Your task to perform on an android device: open chrome privacy settings Image 0: 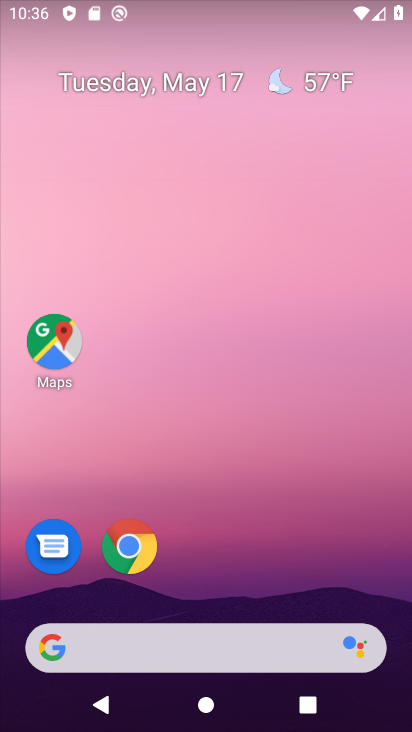
Step 0: click (131, 556)
Your task to perform on an android device: open chrome privacy settings Image 1: 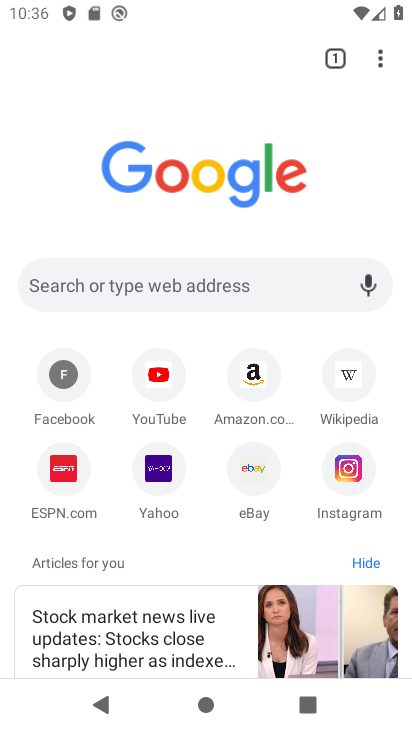
Step 1: drag from (378, 55) to (233, 500)
Your task to perform on an android device: open chrome privacy settings Image 2: 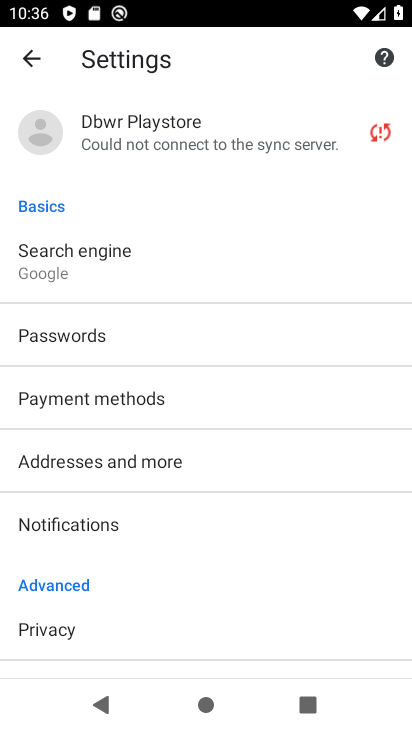
Step 2: drag from (196, 563) to (243, 273)
Your task to perform on an android device: open chrome privacy settings Image 3: 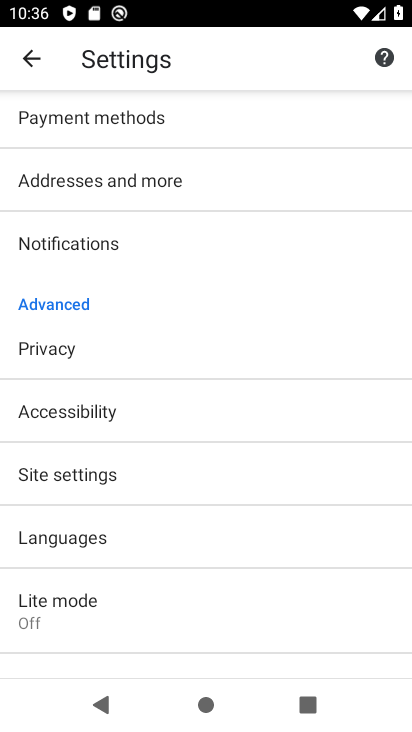
Step 3: drag from (216, 561) to (248, 338)
Your task to perform on an android device: open chrome privacy settings Image 4: 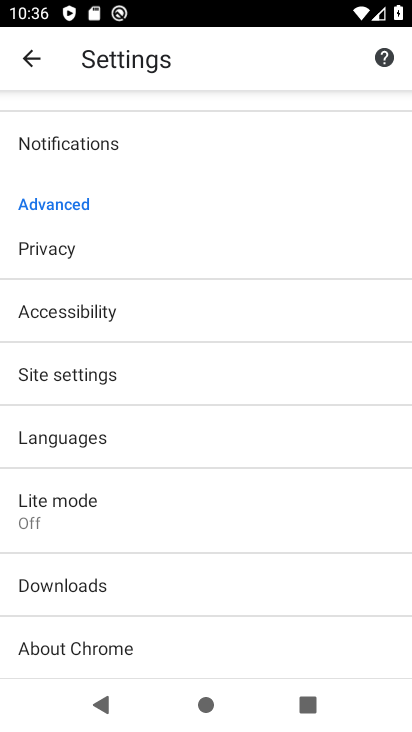
Step 4: drag from (200, 344) to (178, 583)
Your task to perform on an android device: open chrome privacy settings Image 5: 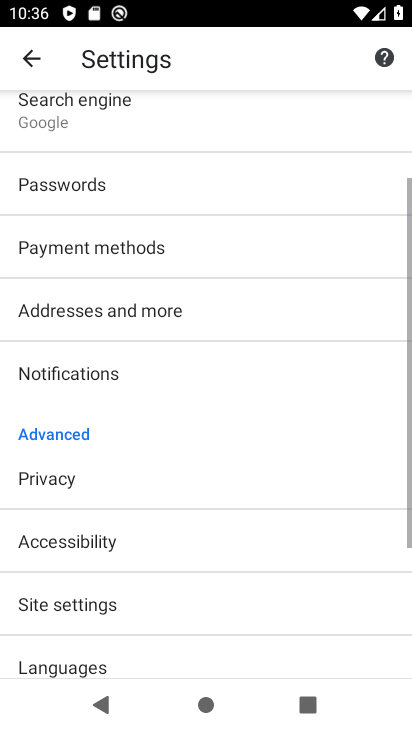
Step 5: click (93, 482)
Your task to perform on an android device: open chrome privacy settings Image 6: 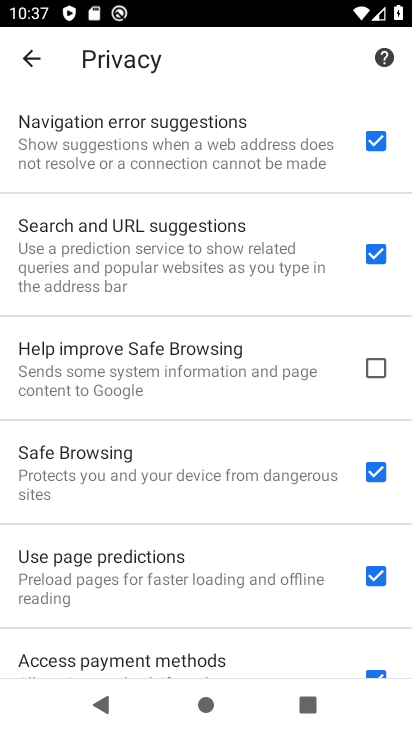
Step 6: task complete